Your task to perform on an android device: Open Android settings Image 0: 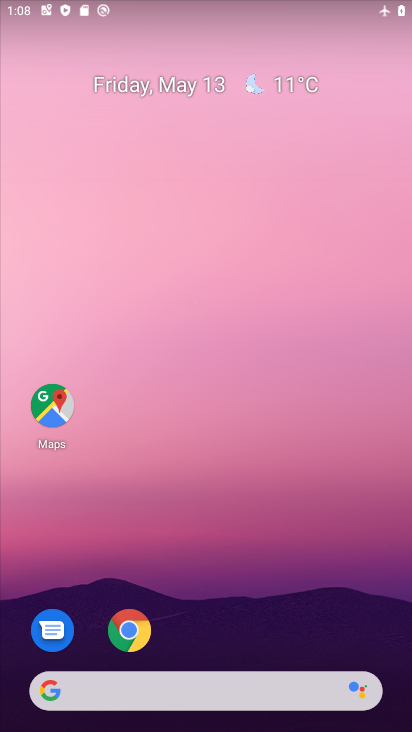
Step 0: drag from (326, 636) to (334, 61)
Your task to perform on an android device: Open Android settings Image 1: 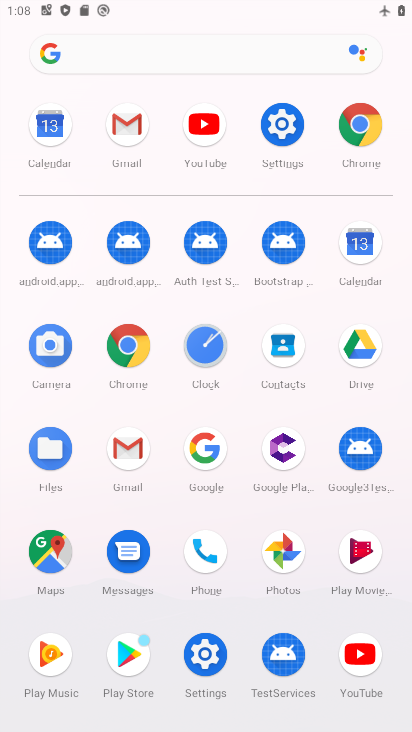
Step 1: click (282, 130)
Your task to perform on an android device: Open Android settings Image 2: 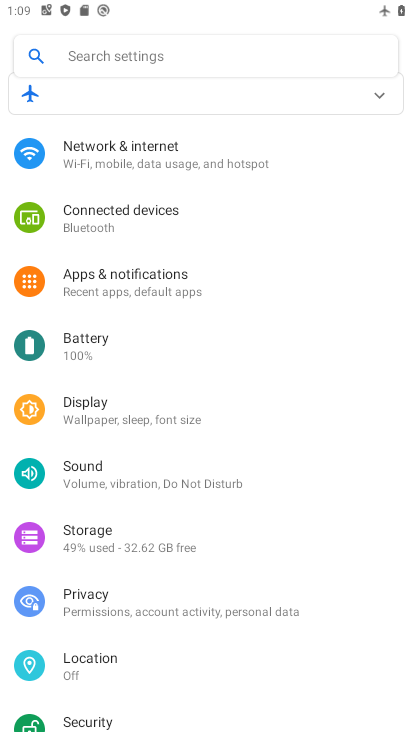
Step 2: task complete